Your task to perform on an android device: Go to Wikipedia Image 0: 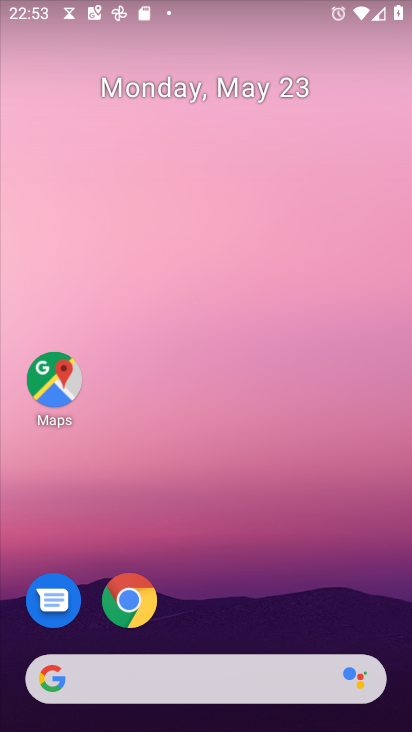
Step 0: click (130, 599)
Your task to perform on an android device: Go to Wikipedia Image 1: 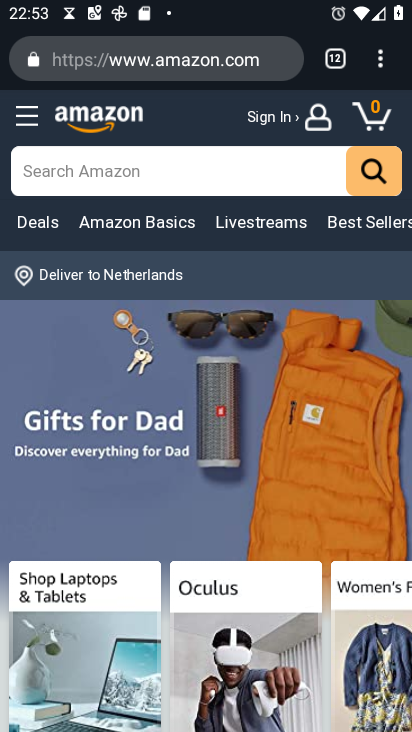
Step 1: click (380, 63)
Your task to perform on an android device: Go to Wikipedia Image 2: 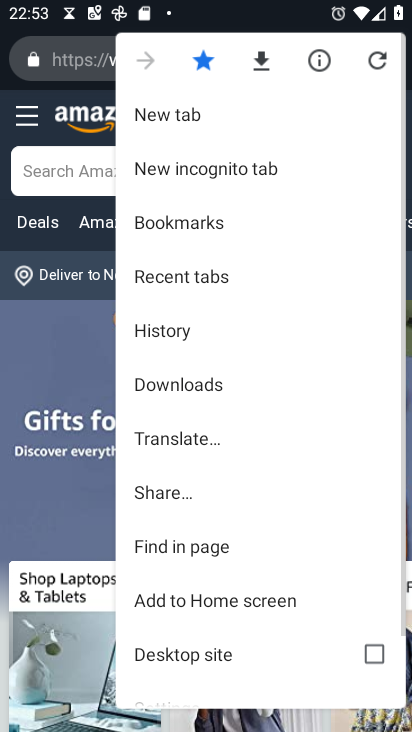
Step 2: click (174, 116)
Your task to perform on an android device: Go to Wikipedia Image 3: 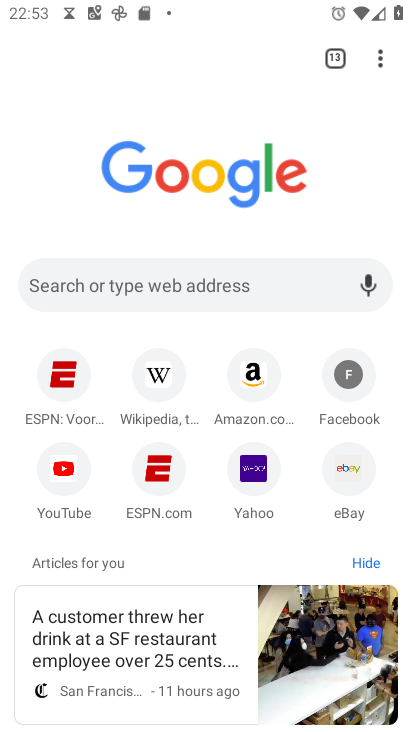
Step 3: click (158, 375)
Your task to perform on an android device: Go to Wikipedia Image 4: 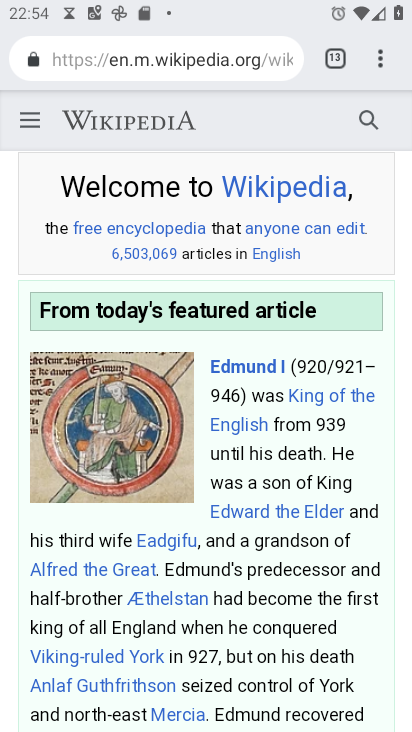
Step 4: task complete